Your task to perform on an android device: Go to internet settings Image 0: 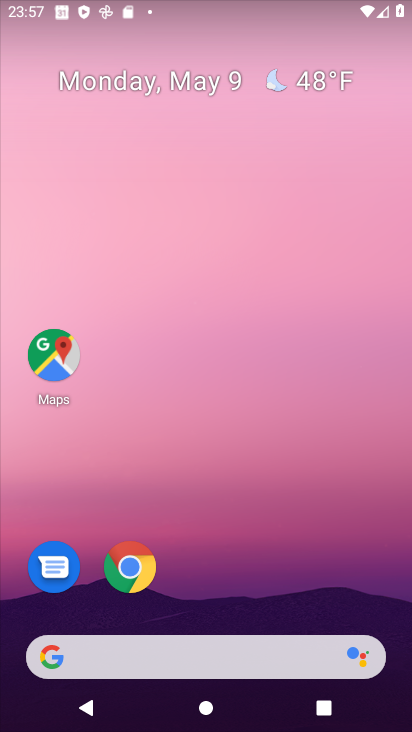
Step 0: drag from (221, 604) to (262, 85)
Your task to perform on an android device: Go to internet settings Image 1: 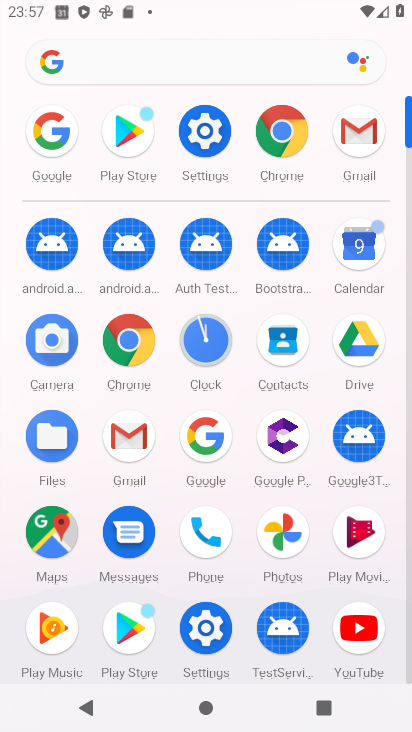
Step 1: click (205, 132)
Your task to perform on an android device: Go to internet settings Image 2: 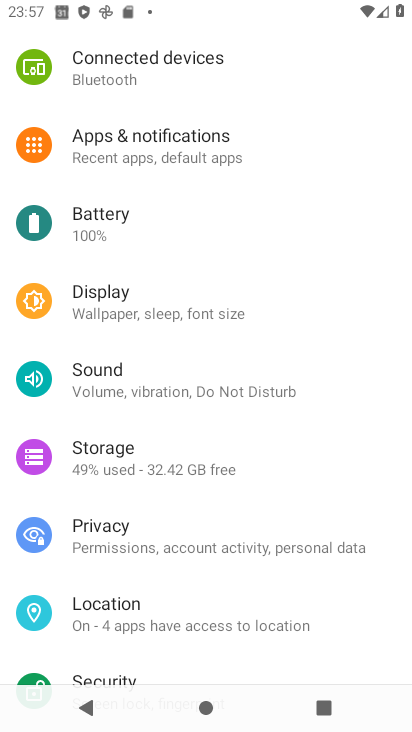
Step 2: drag from (176, 208) to (231, 384)
Your task to perform on an android device: Go to internet settings Image 3: 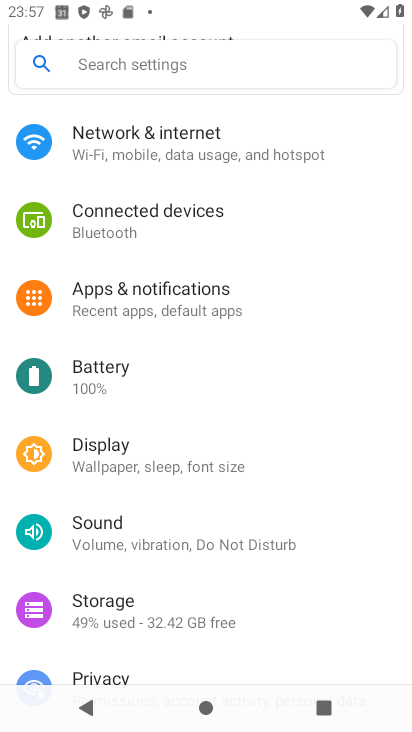
Step 3: click (159, 134)
Your task to perform on an android device: Go to internet settings Image 4: 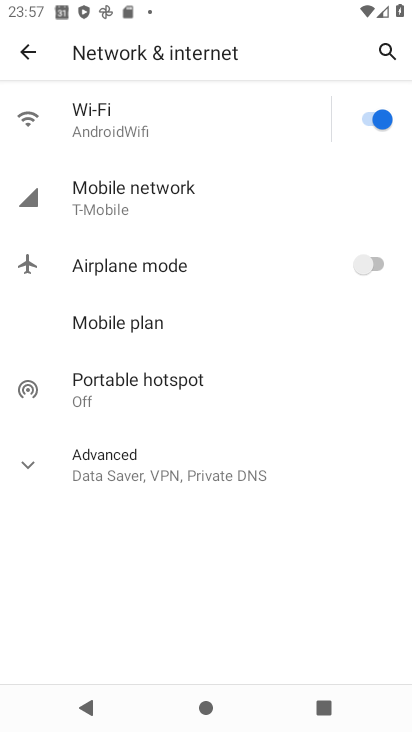
Step 4: click (104, 125)
Your task to perform on an android device: Go to internet settings Image 5: 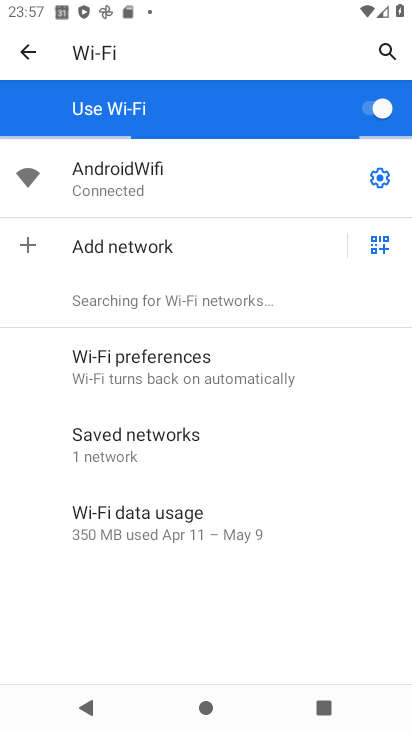
Step 5: click (373, 174)
Your task to perform on an android device: Go to internet settings Image 6: 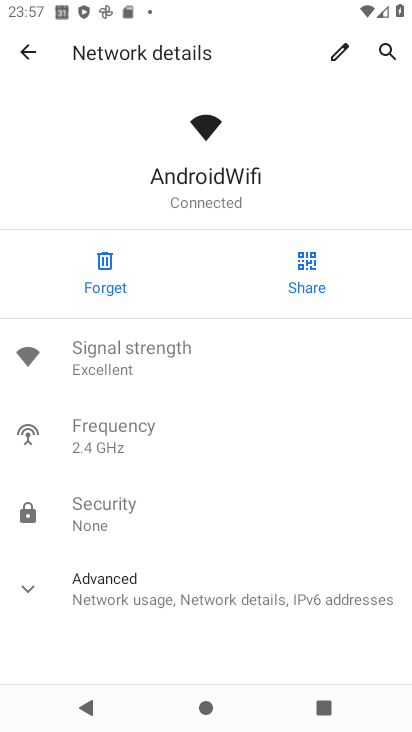
Step 6: task complete